Your task to perform on an android device: Open display settings Image 0: 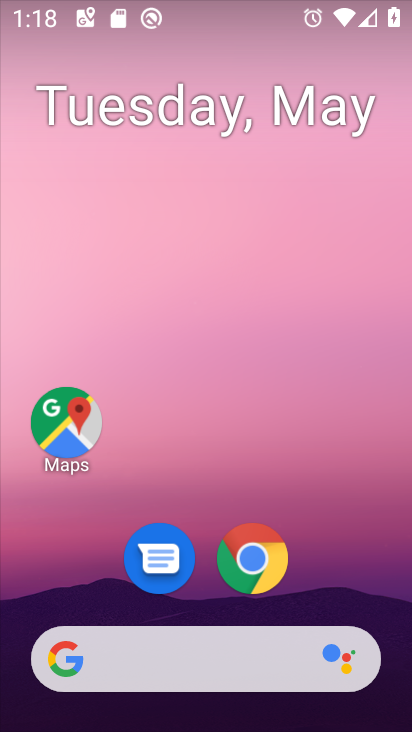
Step 0: drag from (389, 614) to (324, 183)
Your task to perform on an android device: Open display settings Image 1: 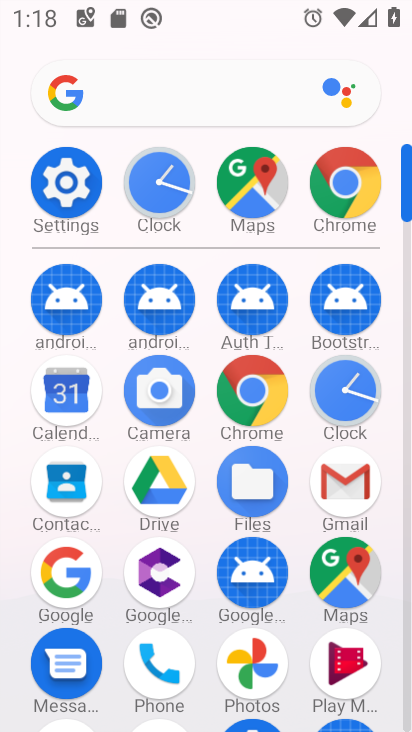
Step 1: click (72, 177)
Your task to perform on an android device: Open display settings Image 2: 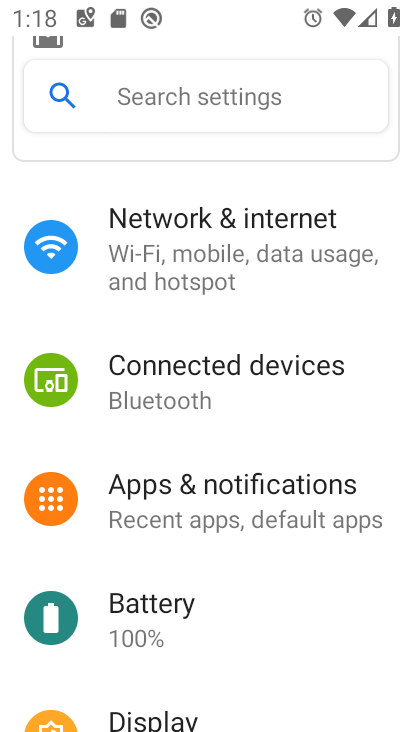
Step 2: click (244, 709)
Your task to perform on an android device: Open display settings Image 3: 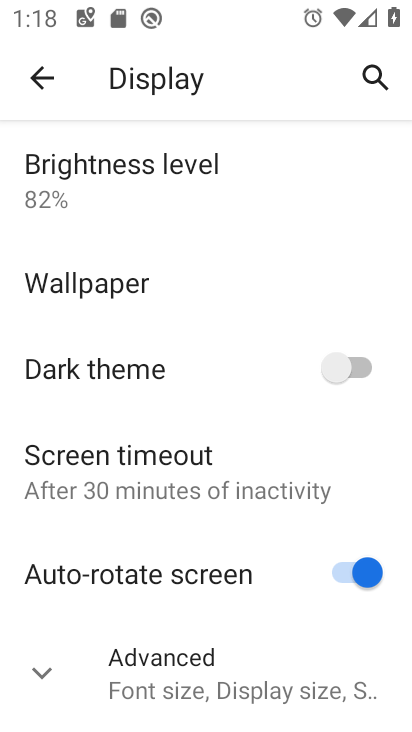
Step 3: task complete